Your task to perform on an android device: toggle data saver in the chrome app Image 0: 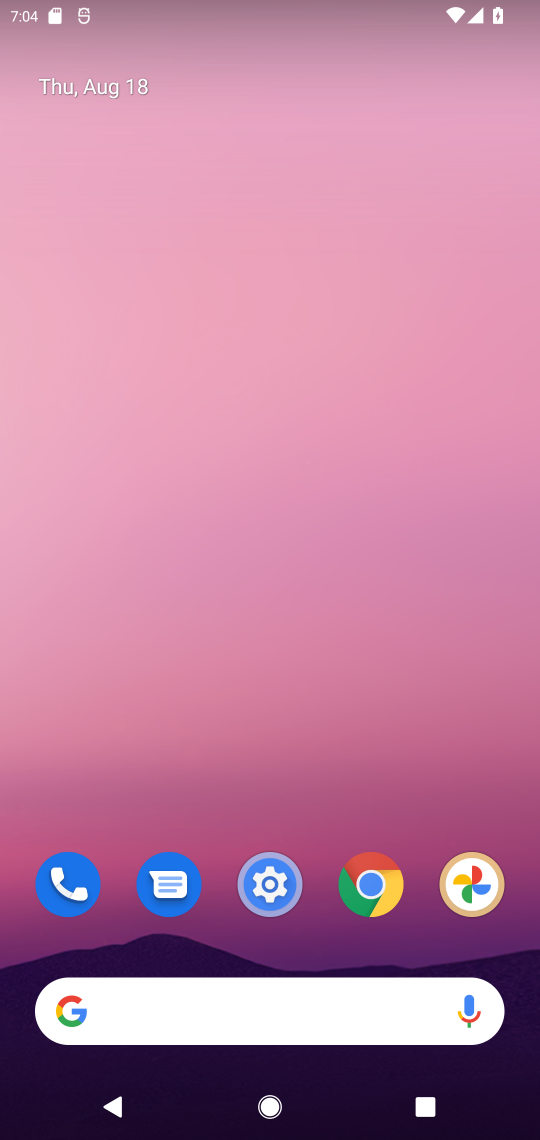
Step 0: click (368, 883)
Your task to perform on an android device: toggle data saver in the chrome app Image 1: 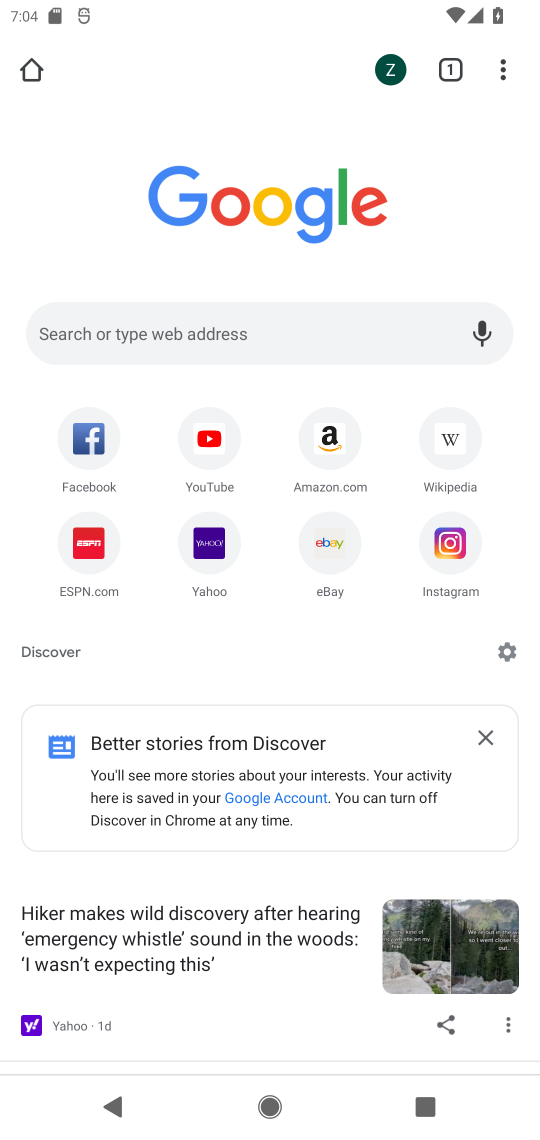
Step 1: click (510, 72)
Your task to perform on an android device: toggle data saver in the chrome app Image 2: 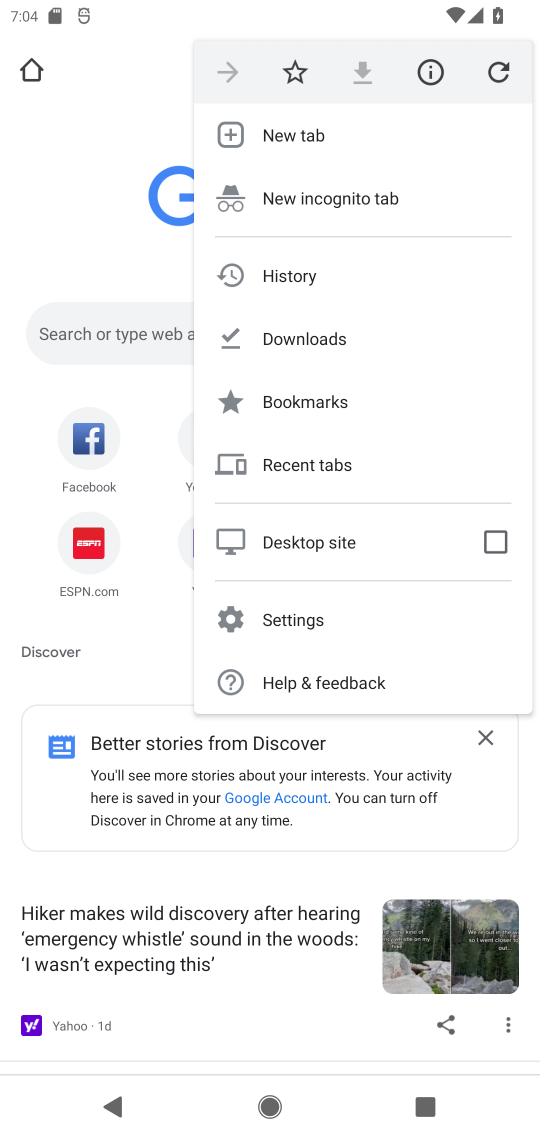
Step 2: click (301, 632)
Your task to perform on an android device: toggle data saver in the chrome app Image 3: 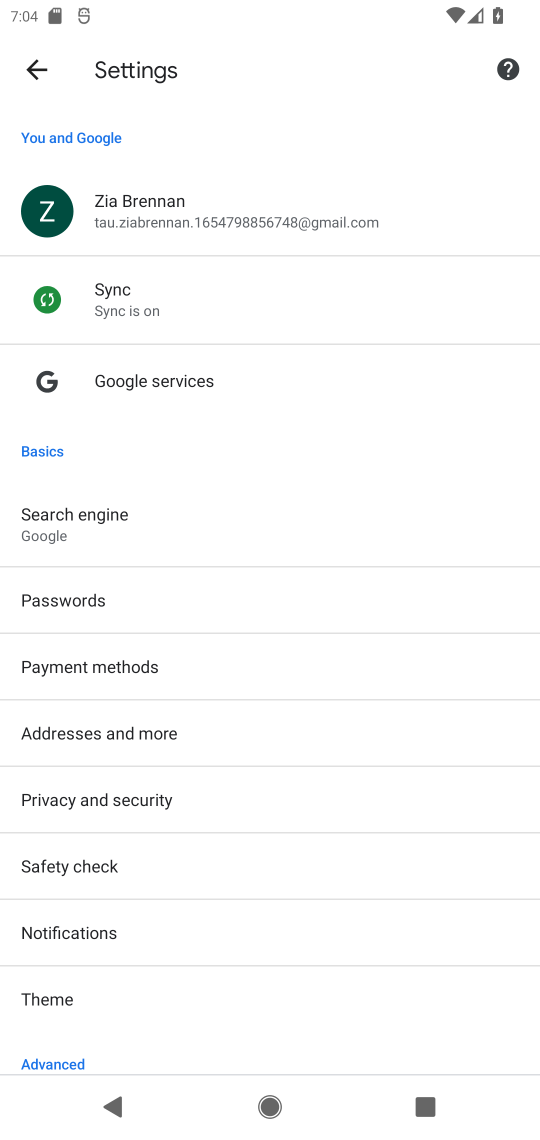
Step 3: drag from (100, 676) to (109, 275)
Your task to perform on an android device: toggle data saver in the chrome app Image 4: 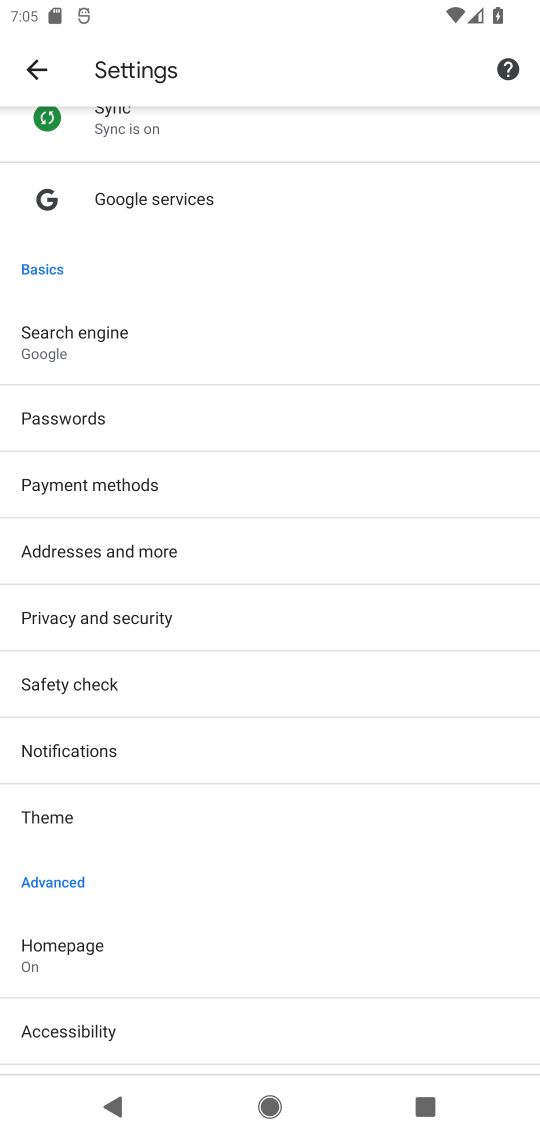
Step 4: drag from (192, 1046) to (183, 403)
Your task to perform on an android device: toggle data saver in the chrome app Image 5: 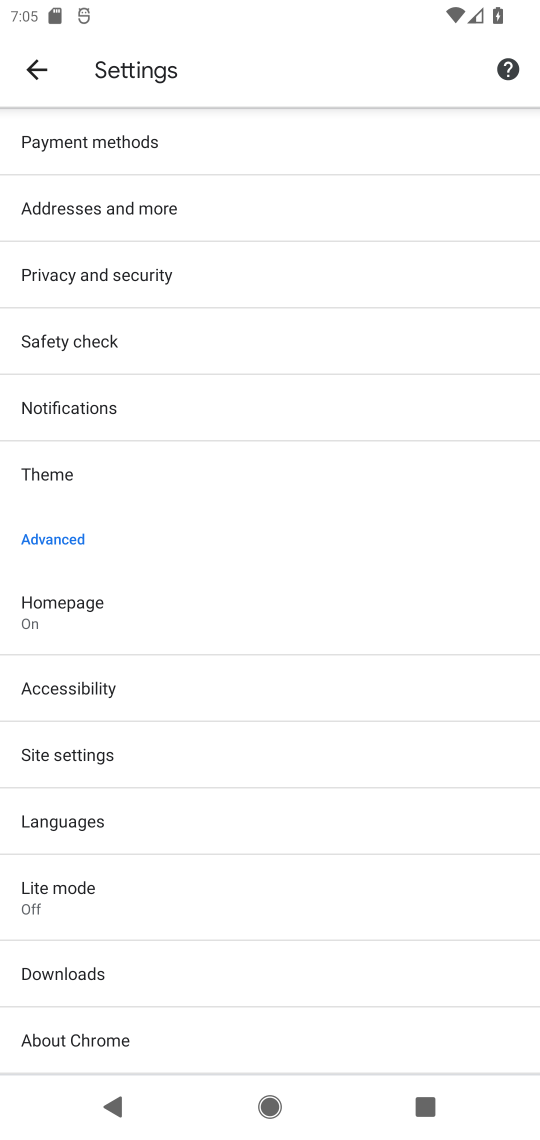
Step 5: click (196, 779)
Your task to perform on an android device: toggle data saver in the chrome app Image 6: 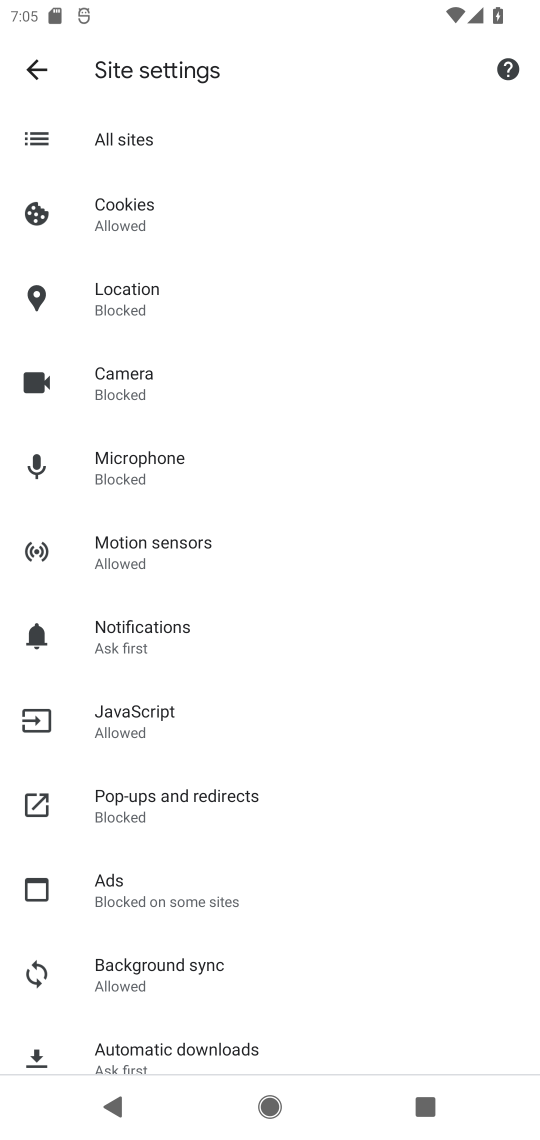
Step 6: click (47, 67)
Your task to perform on an android device: toggle data saver in the chrome app Image 7: 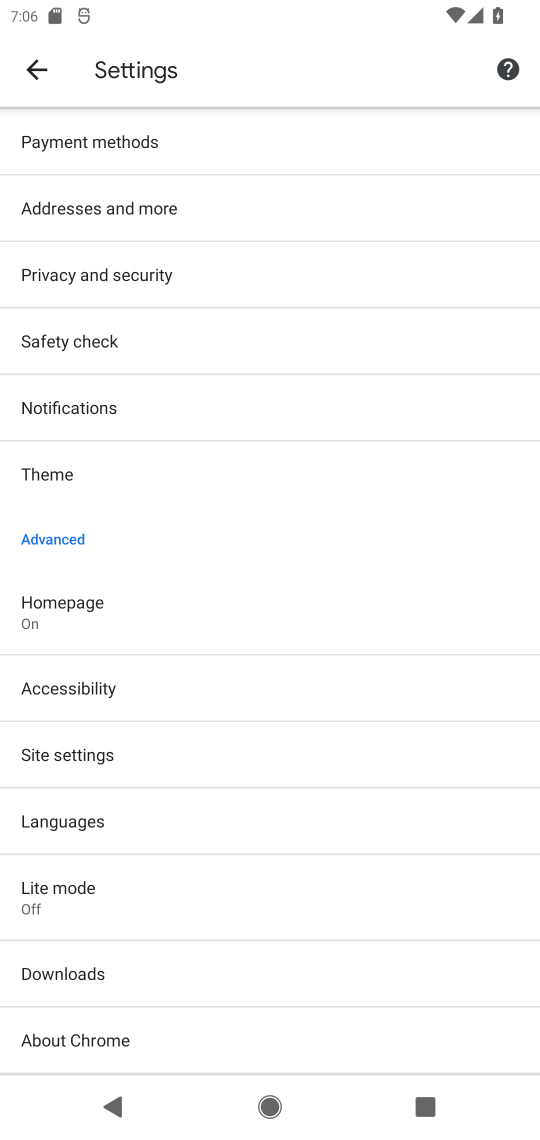
Step 7: click (53, 895)
Your task to perform on an android device: toggle data saver in the chrome app Image 8: 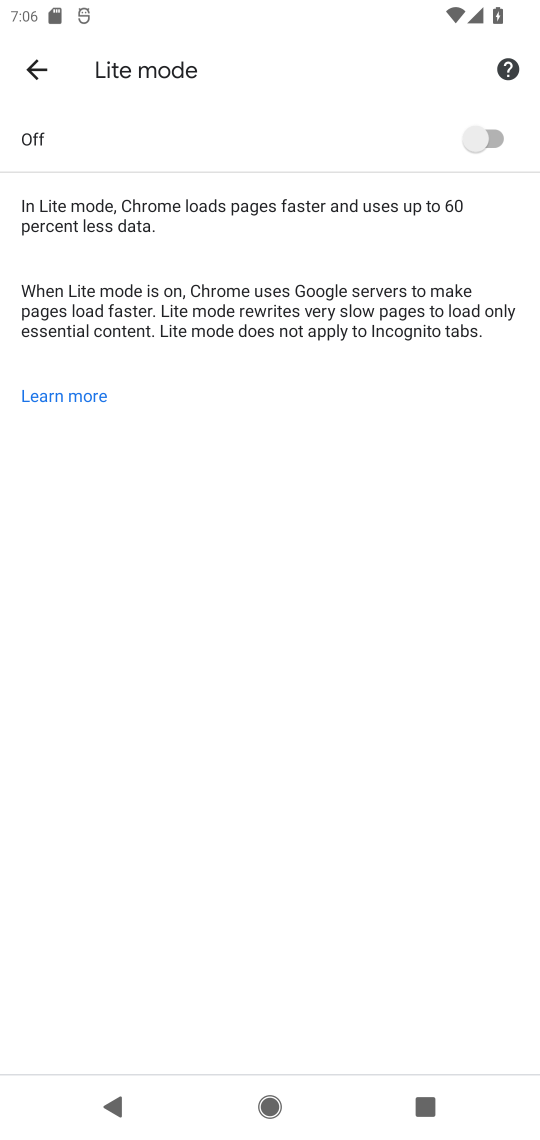
Step 8: click (495, 143)
Your task to perform on an android device: toggle data saver in the chrome app Image 9: 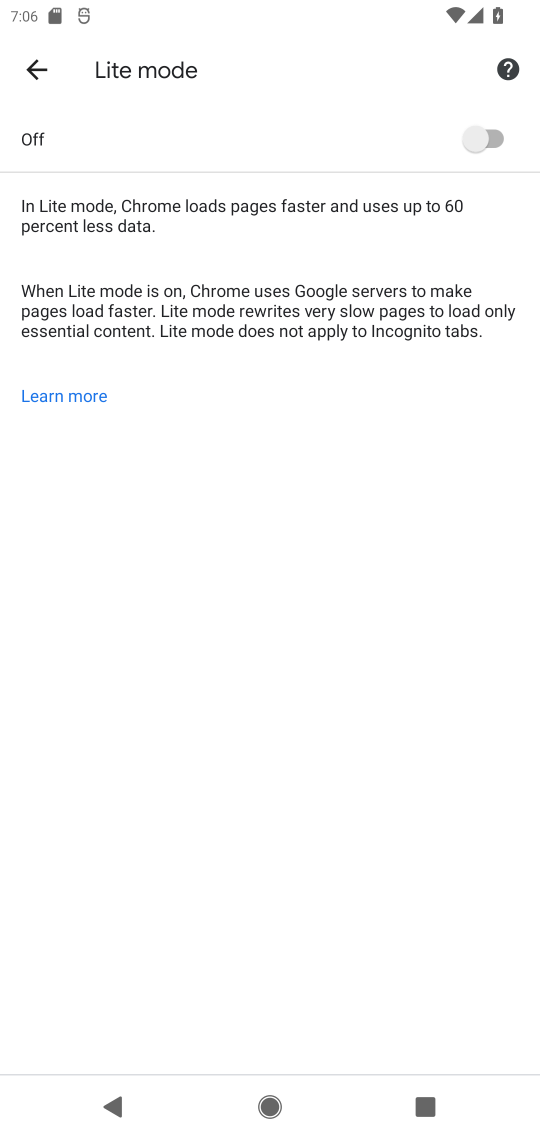
Step 9: click (495, 143)
Your task to perform on an android device: toggle data saver in the chrome app Image 10: 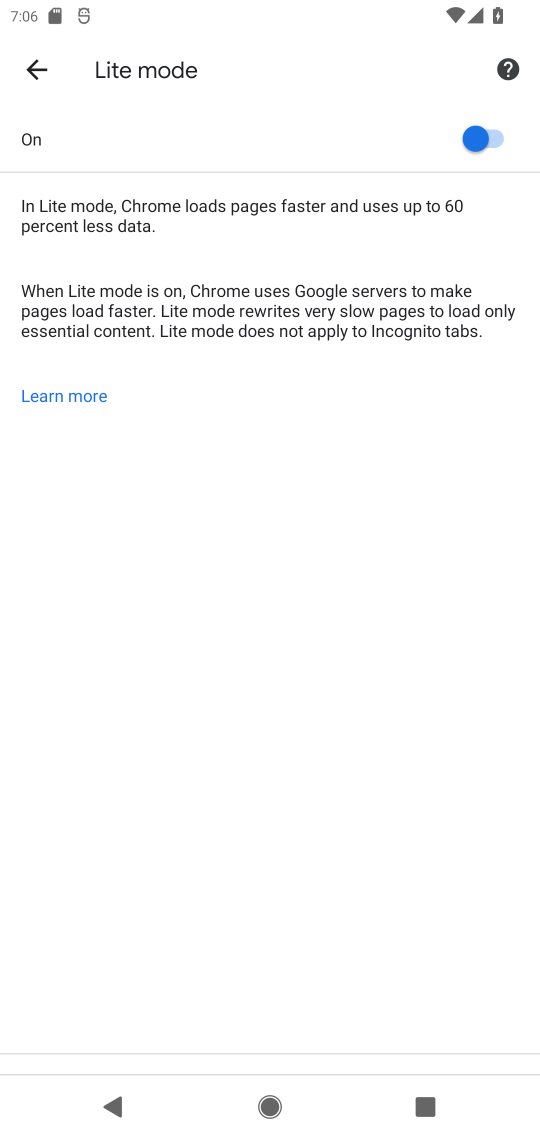
Step 10: click (495, 143)
Your task to perform on an android device: toggle data saver in the chrome app Image 11: 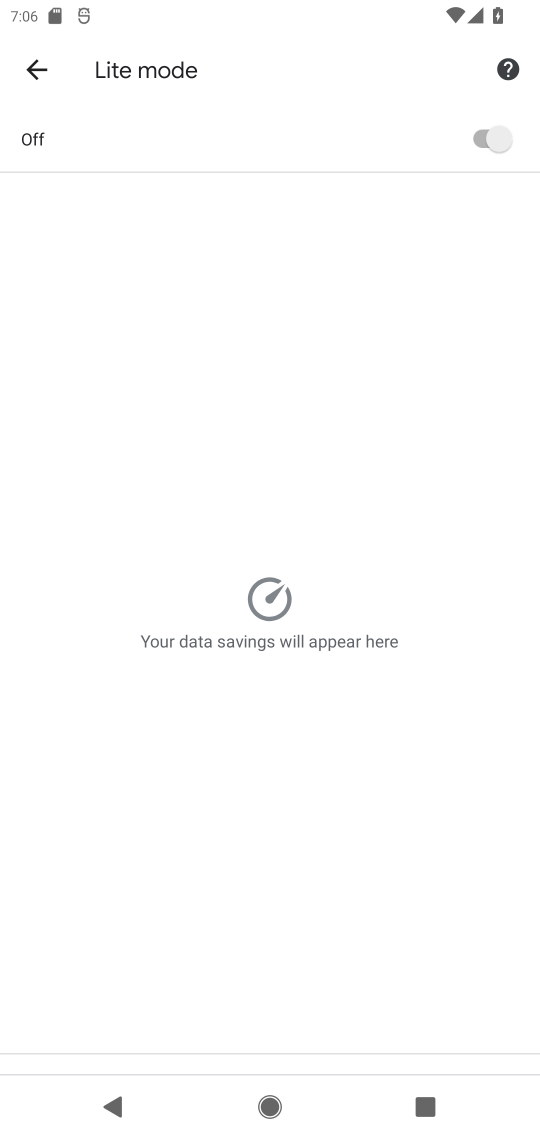
Step 11: click (495, 143)
Your task to perform on an android device: toggle data saver in the chrome app Image 12: 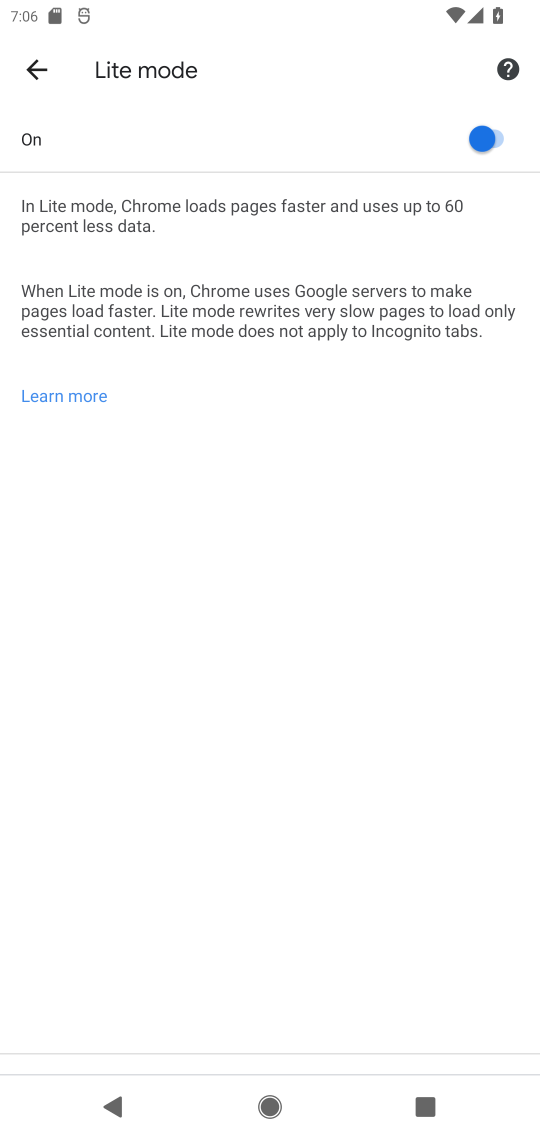
Step 12: click (495, 143)
Your task to perform on an android device: toggle data saver in the chrome app Image 13: 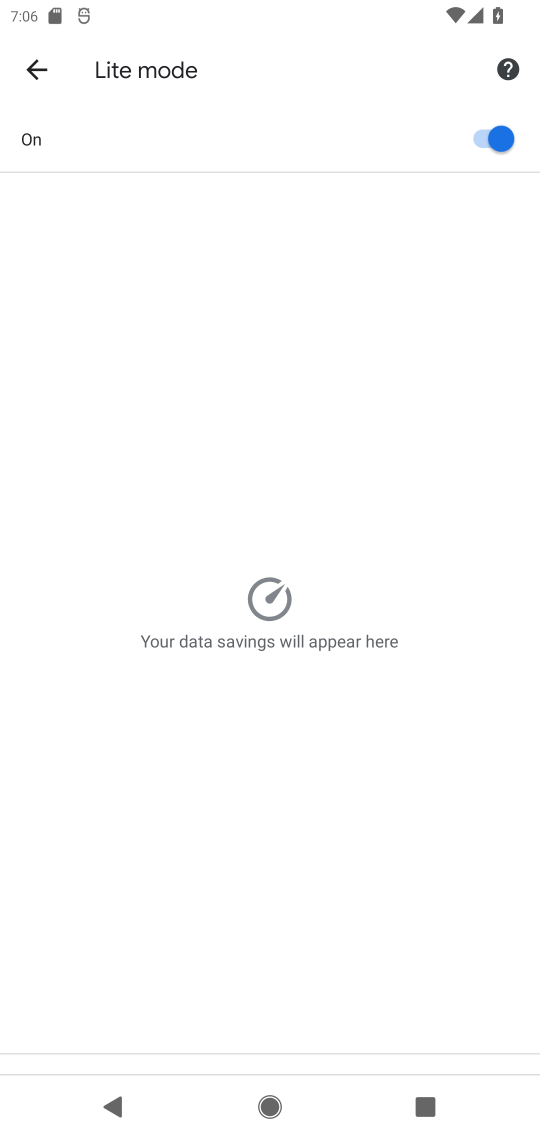
Step 13: click (495, 143)
Your task to perform on an android device: toggle data saver in the chrome app Image 14: 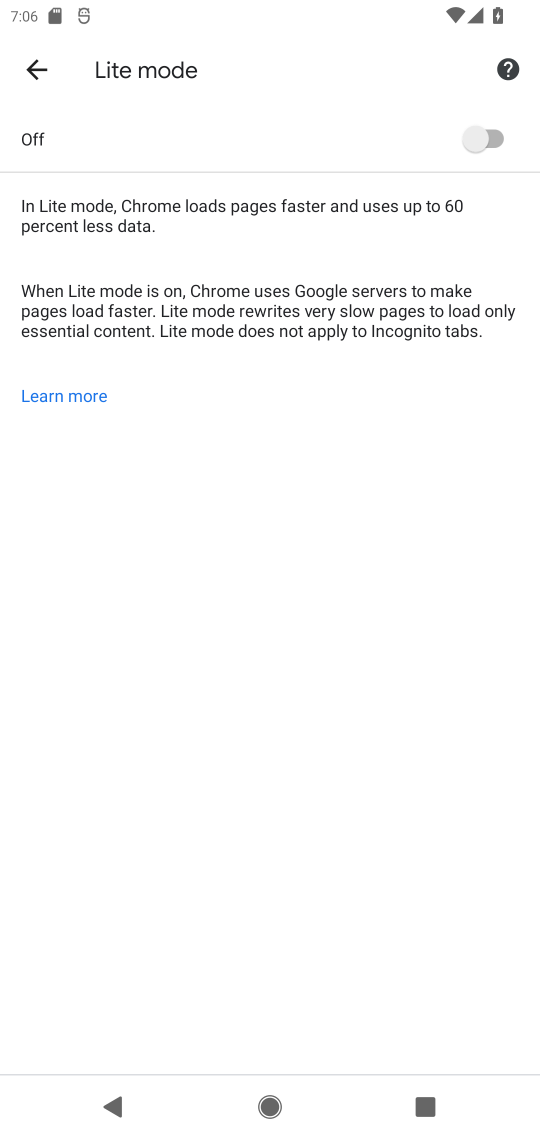
Step 14: task complete